Your task to perform on an android device: turn on data saver in the chrome app Image 0: 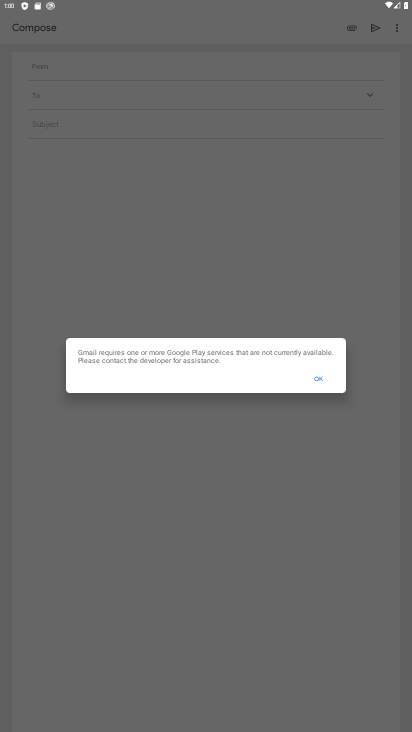
Step 0: press home button
Your task to perform on an android device: turn on data saver in the chrome app Image 1: 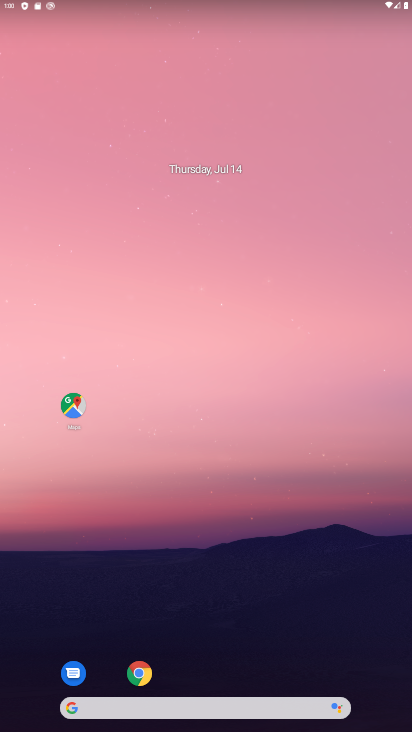
Step 1: drag from (171, 681) to (224, 149)
Your task to perform on an android device: turn on data saver in the chrome app Image 2: 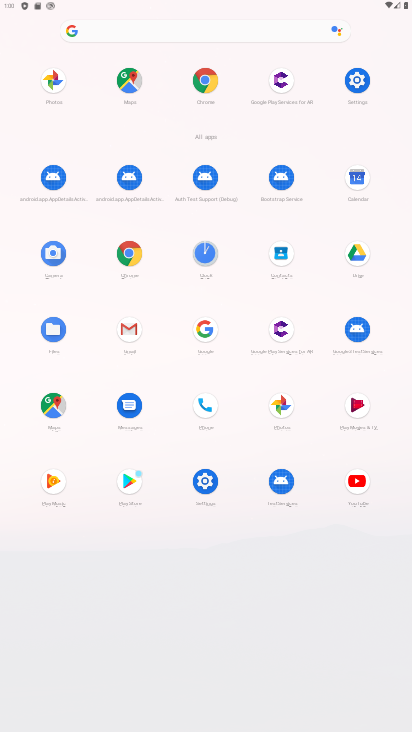
Step 2: click (133, 256)
Your task to perform on an android device: turn on data saver in the chrome app Image 3: 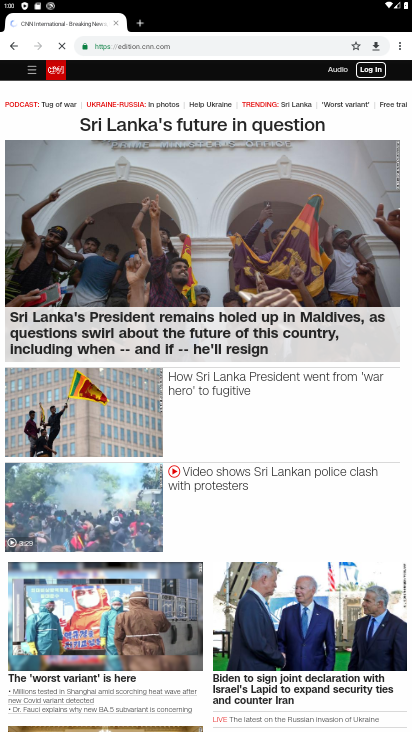
Step 3: drag from (402, 47) to (327, 305)
Your task to perform on an android device: turn on data saver in the chrome app Image 4: 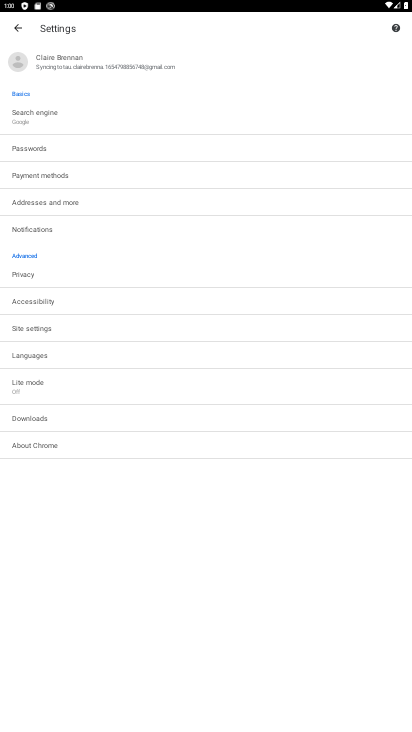
Step 4: click (71, 395)
Your task to perform on an android device: turn on data saver in the chrome app Image 5: 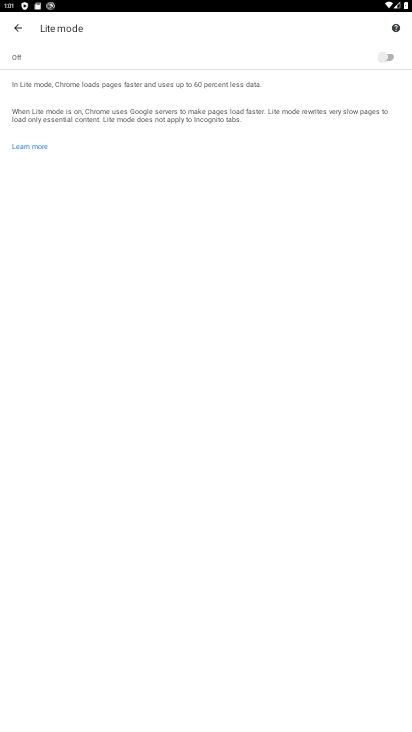
Step 5: click (400, 60)
Your task to perform on an android device: turn on data saver in the chrome app Image 6: 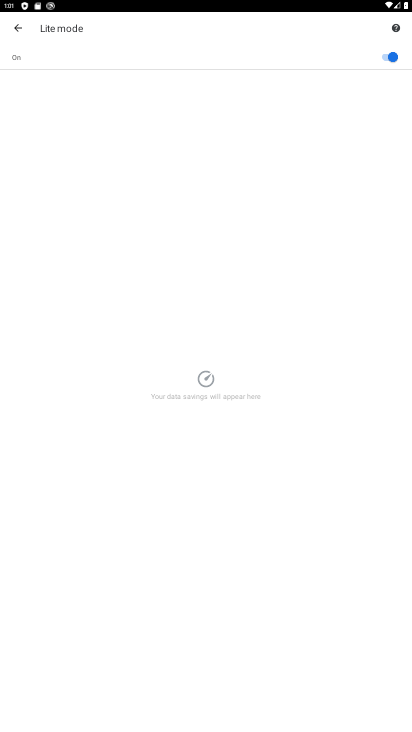
Step 6: task complete